Your task to perform on an android device: What's on the menu at IHOP? Image 0: 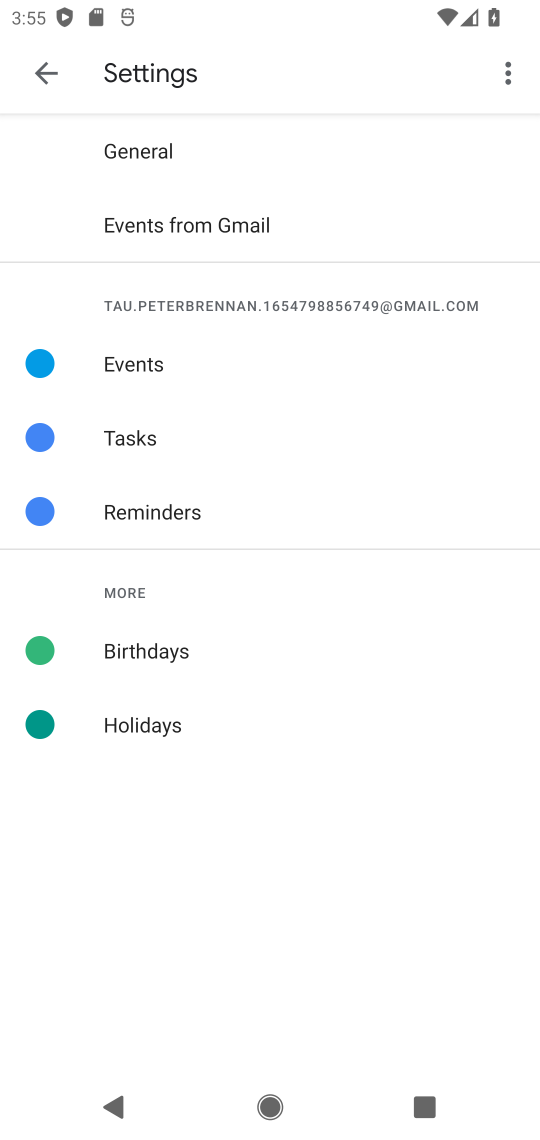
Step 0: press home button
Your task to perform on an android device: What's on the menu at IHOP? Image 1: 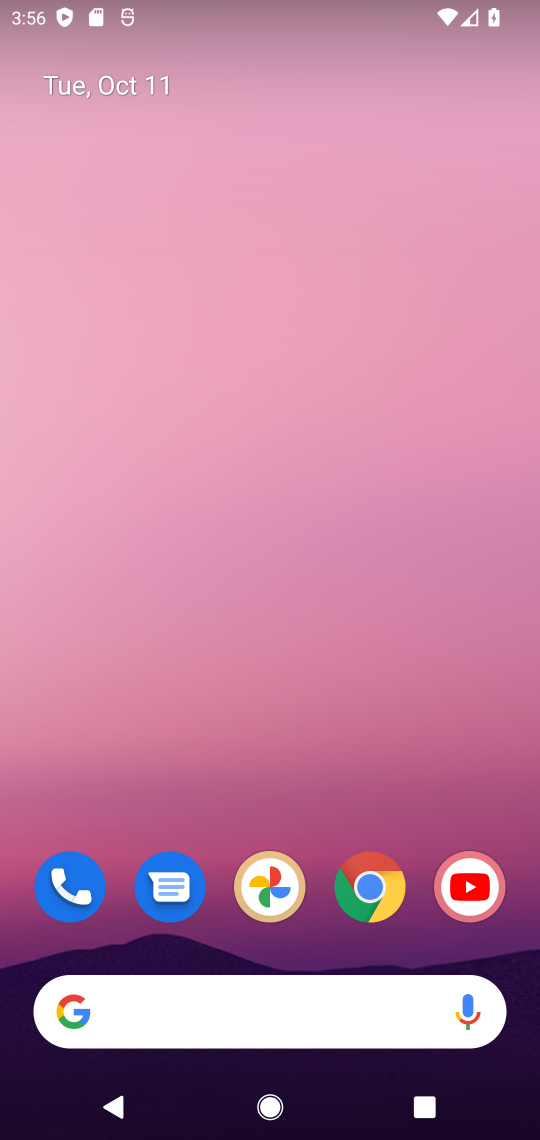
Step 1: click (374, 886)
Your task to perform on an android device: What's on the menu at IHOP? Image 2: 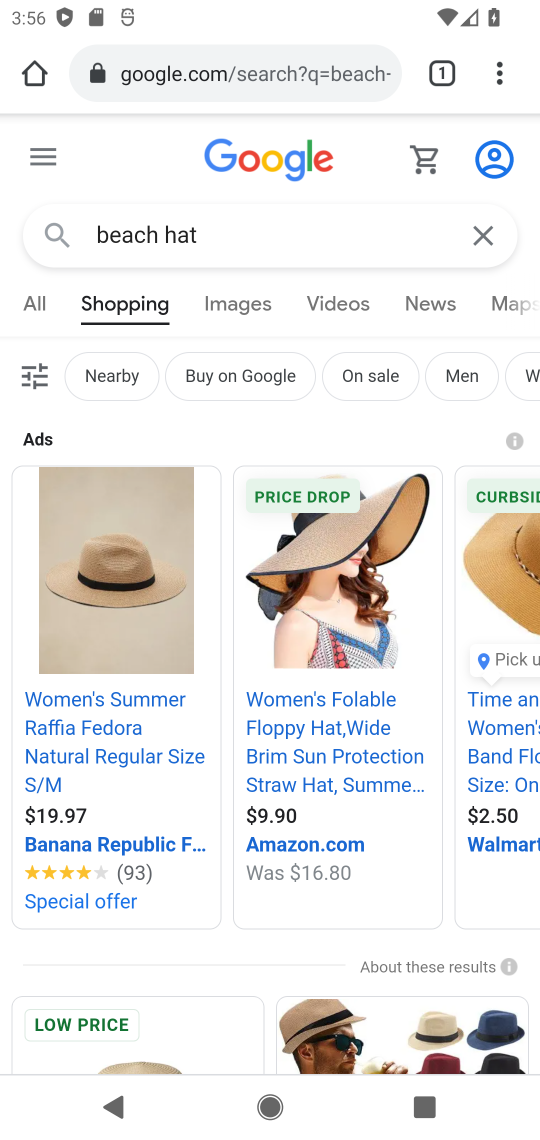
Step 2: click (471, 244)
Your task to perform on an android device: What's on the menu at IHOP? Image 3: 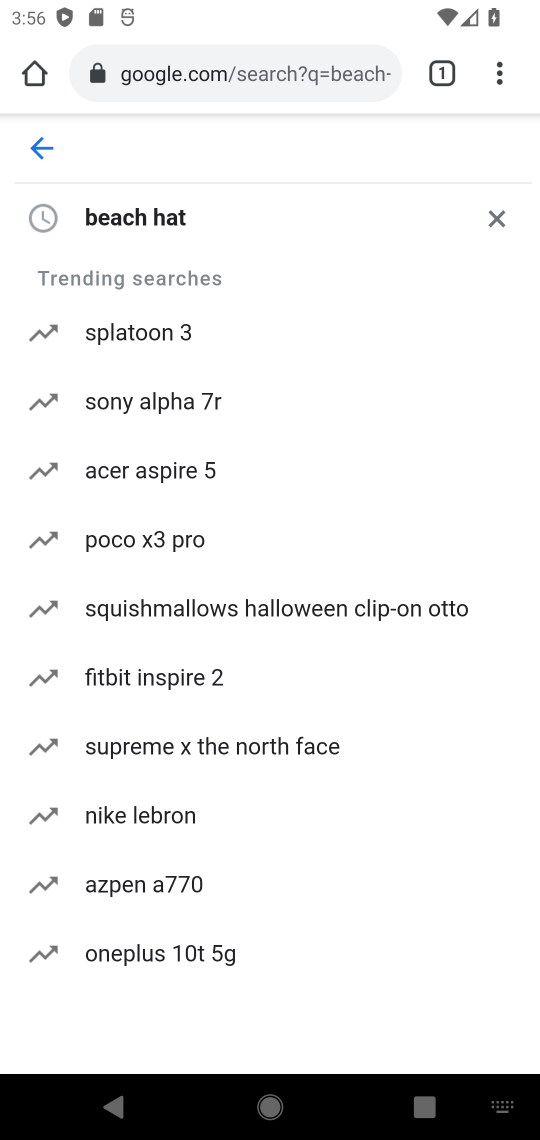
Step 3: click (230, 148)
Your task to perform on an android device: What's on the menu at IHOP? Image 4: 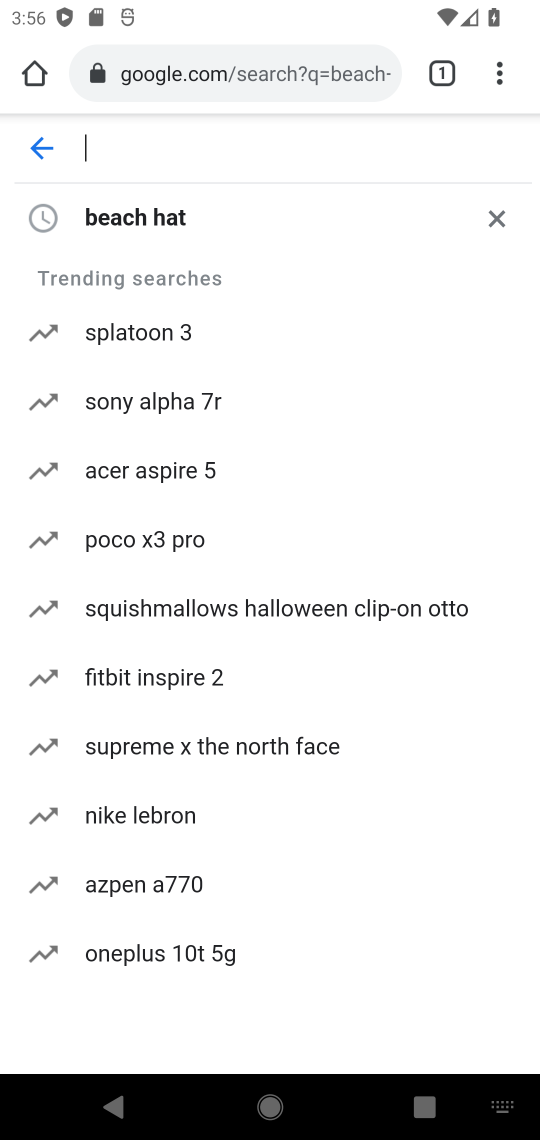
Step 4: type "IHOP menu"
Your task to perform on an android device: What's on the menu at IHOP? Image 5: 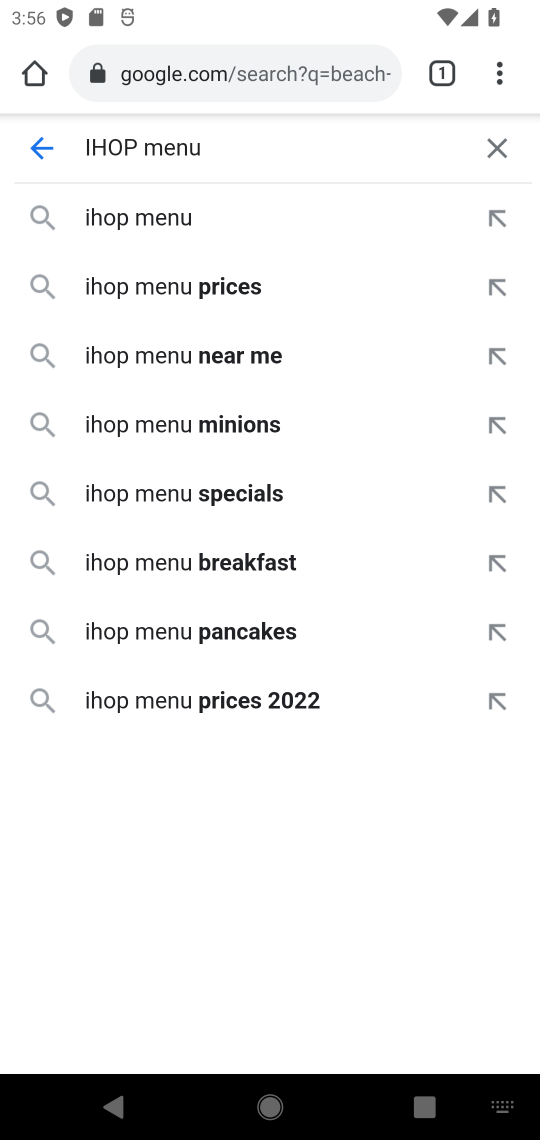
Step 5: click (156, 226)
Your task to perform on an android device: What's on the menu at IHOP? Image 6: 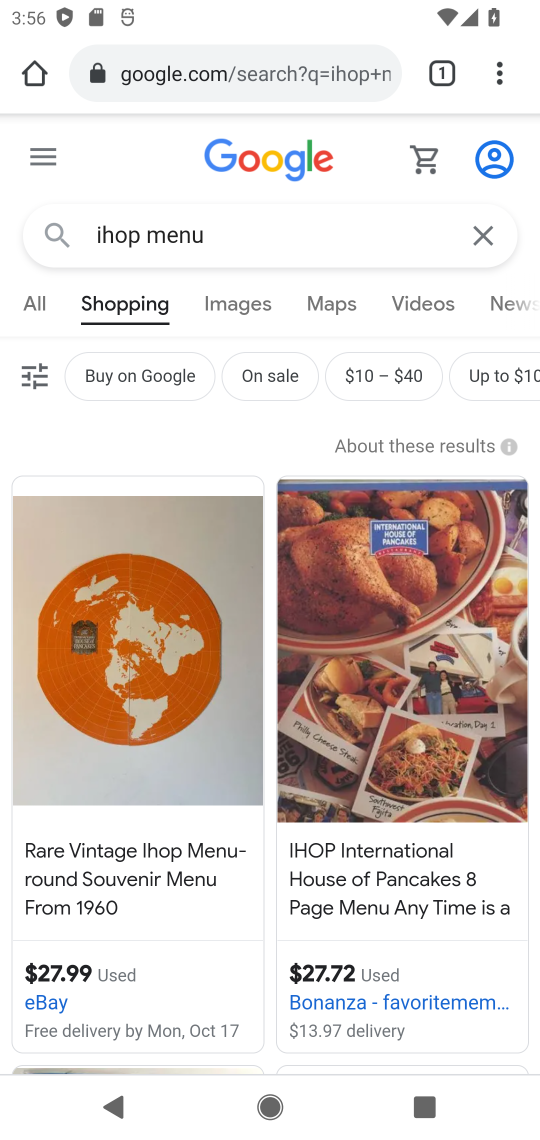
Step 6: task complete